Your task to perform on an android device: remove spam from my inbox in the gmail app Image 0: 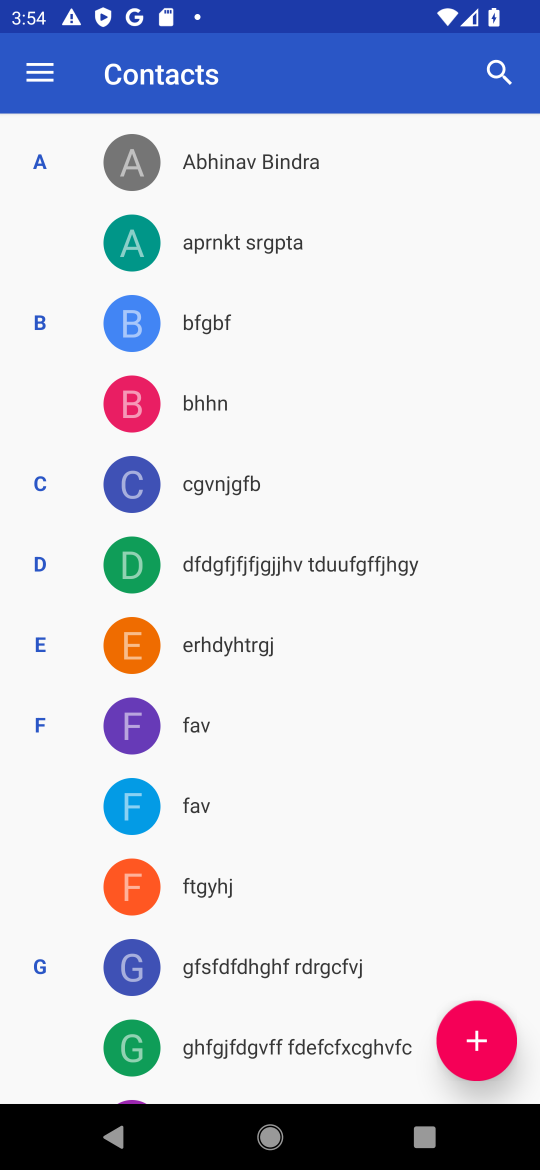
Step 0: press home button
Your task to perform on an android device: remove spam from my inbox in the gmail app Image 1: 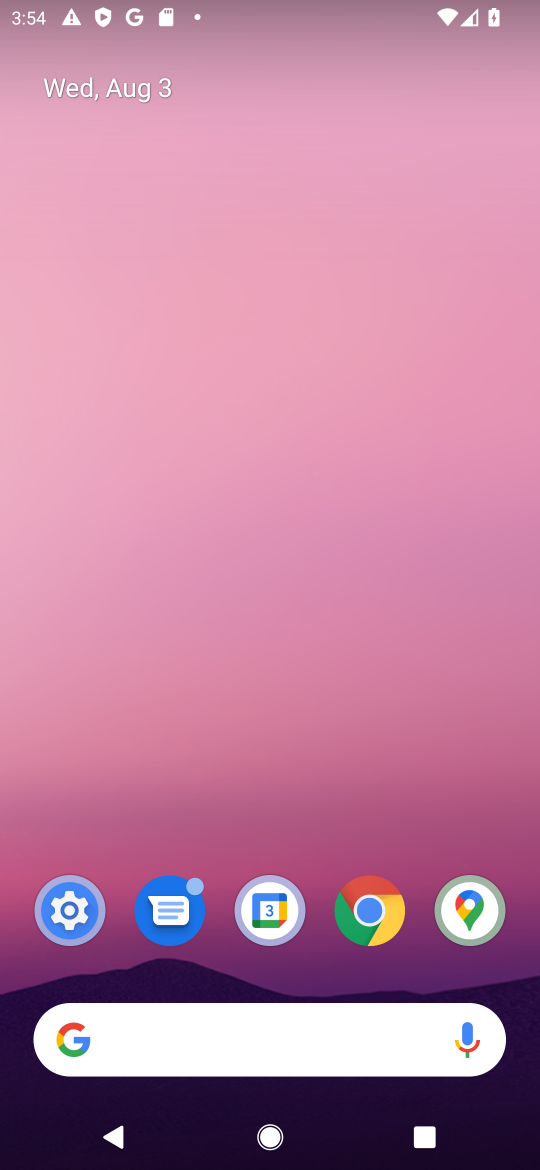
Step 1: drag from (99, 1004) to (421, 79)
Your task to perform on an android device: remove spam from my inbox in the gmail app Image 2: 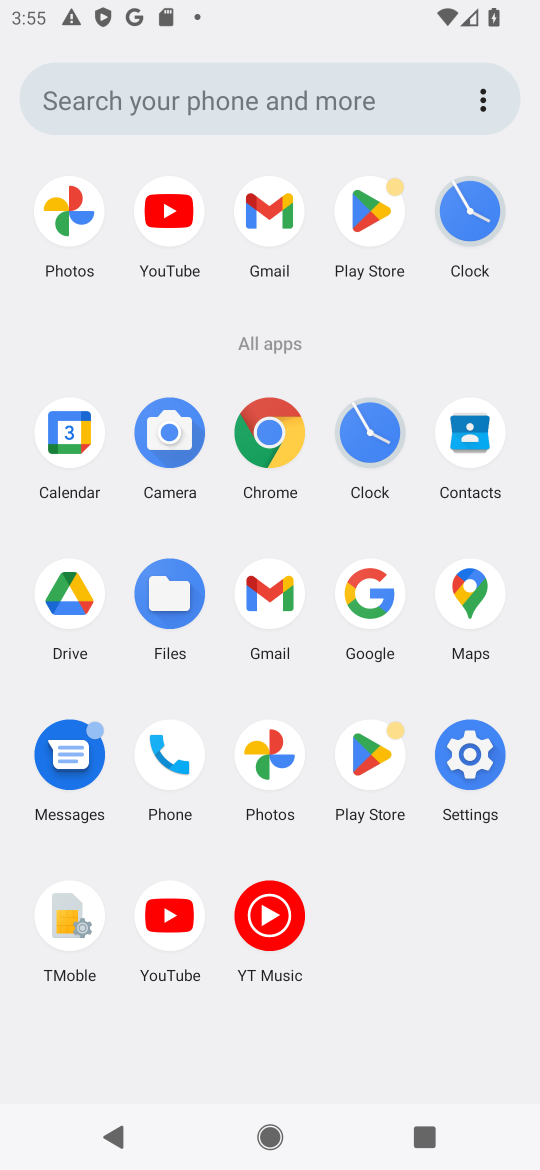
Step 2: click (256, 608)
Your task to perform on an android device: remove spam from my inbox in the gmail app Image 3: 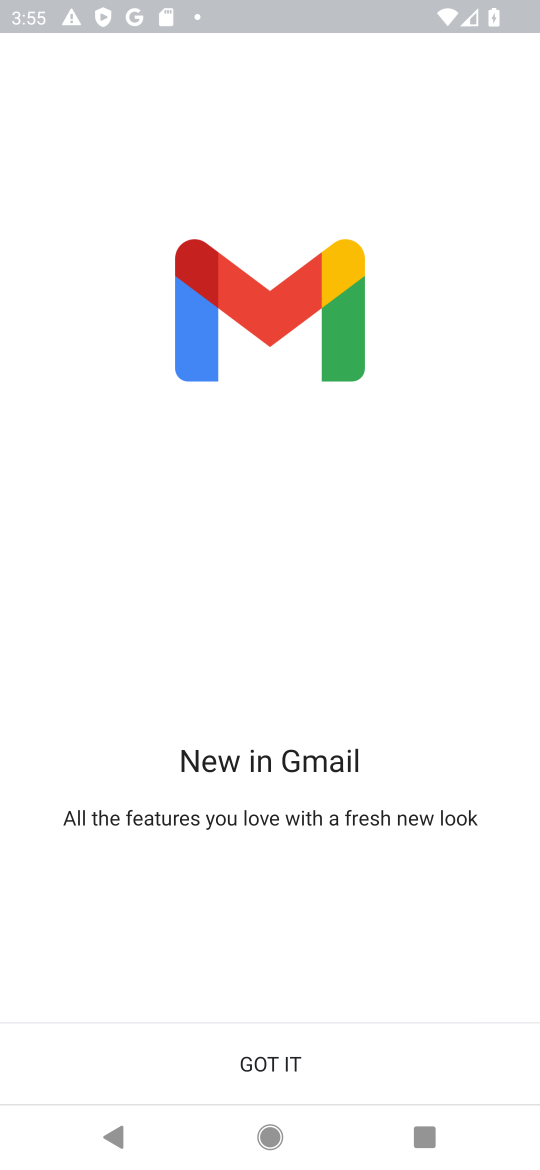
Step 3: click (244, 1055)
Your task to perform on an android device: remove spam from my inbox in the gmail app Image 4: 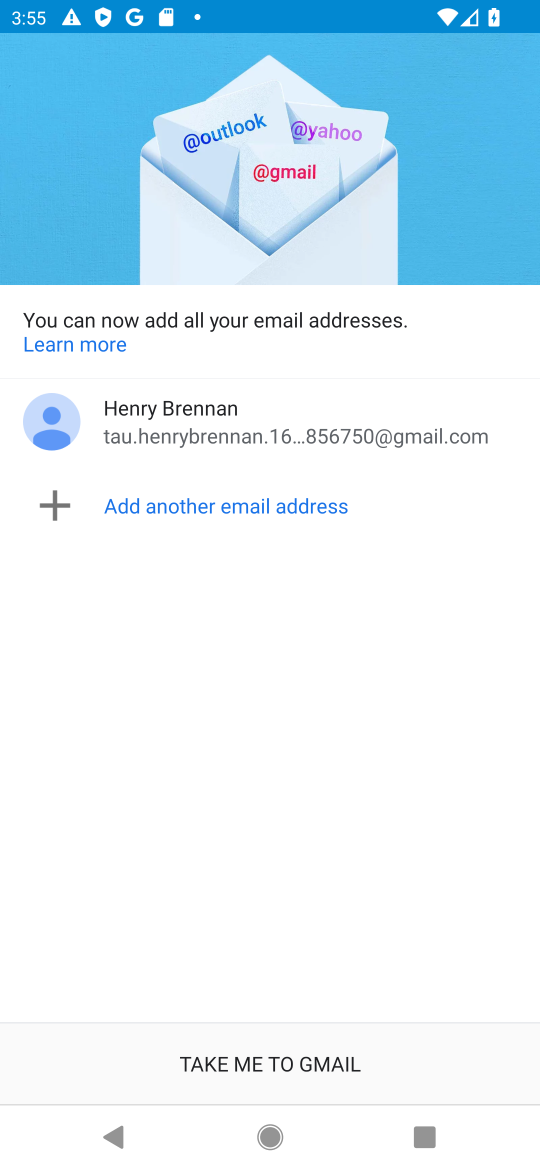
Step 4: click (243, 1055)
Your task to perform on an android device: remove spam from my inbox in the gmail app Image 5: 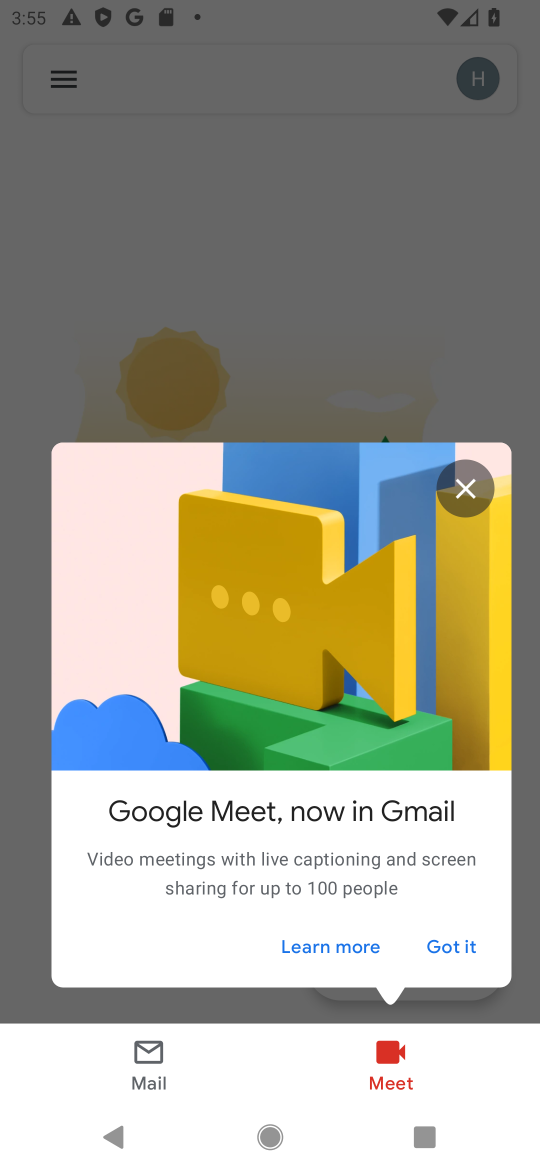
Step 5: click (457, 947)
Your task to perform on an android device: remove spam from my inbox in the gmail app Image 6: 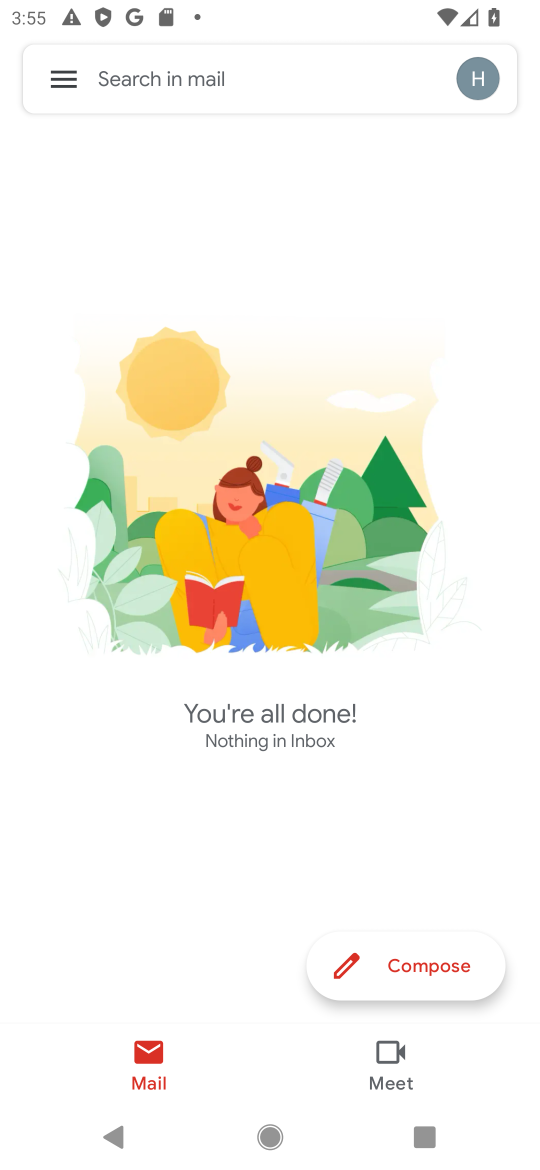
Step 6: click (59, 87)
Your task to perform on an android device: remove spam from my inbox in the gmail app Image 7: 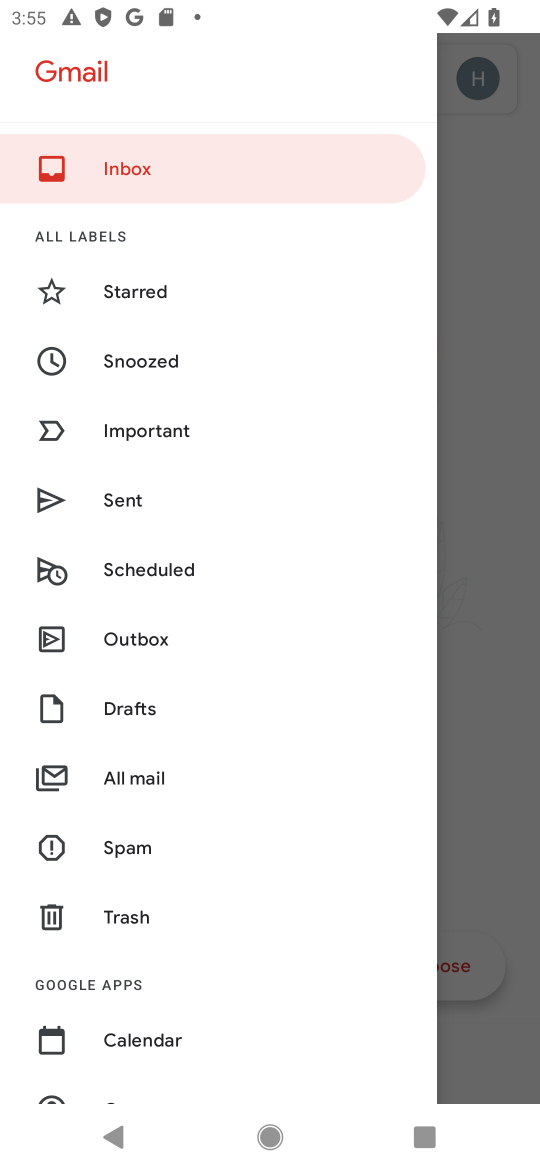
Step 7: click (99, 851)
Your task to perform on an android device: remove spam from my inbox in the gmail app Image 8: 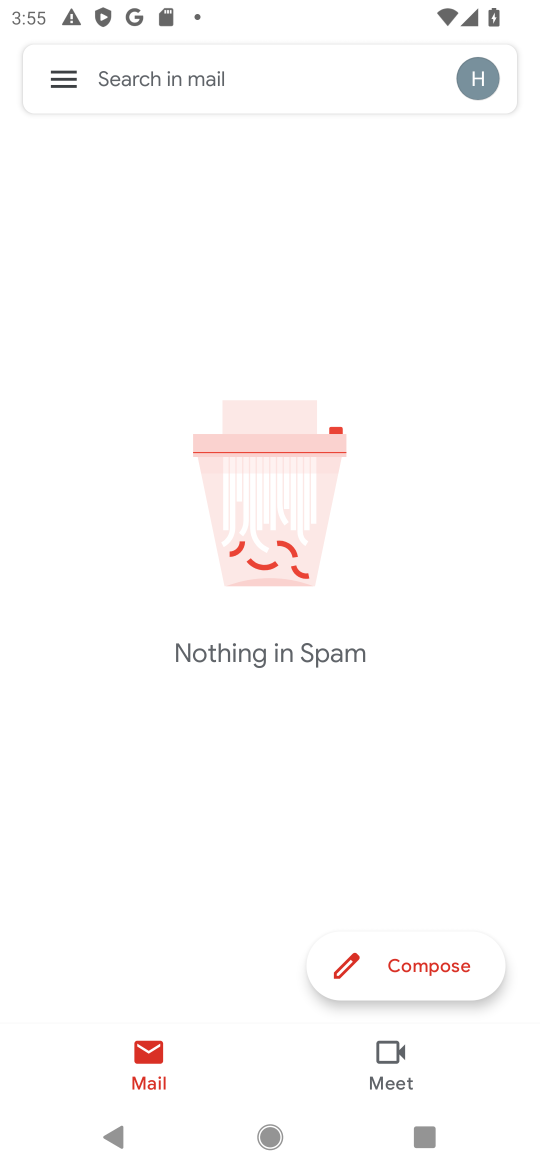
Step 8: task complete